Your task to perform on an android device: move a message to another label in the gmail app Image 0: 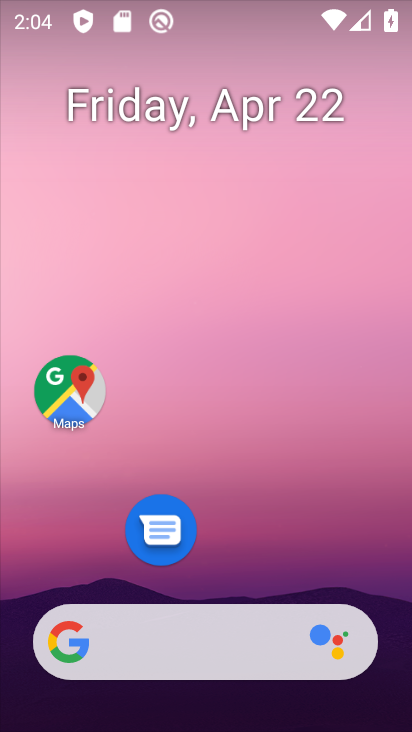
Step 0: drag from (209, 293) to (40, 22)
Your task to perform on an android device: move a message to another label in the gmail app Image 1: 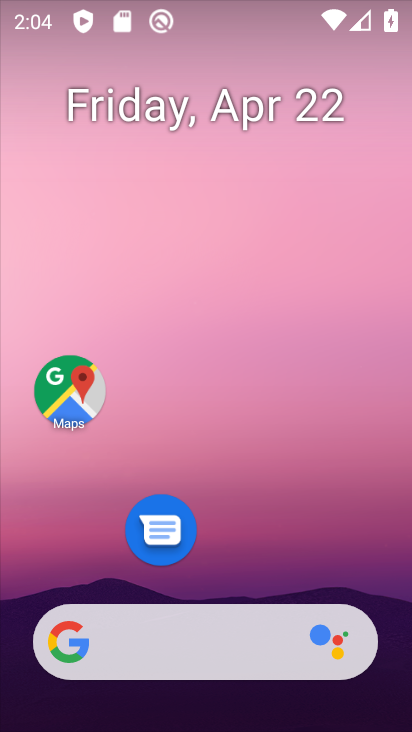
Step 1: drag from (232, 542) to (165, 22)
Your task to perform on an android device: move a message to another label in the gmail app Image 2: 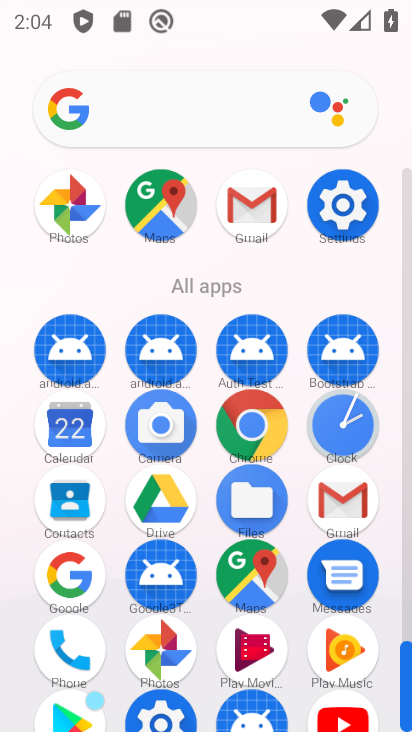
Step 2: click (335, 497)
Your task to perform on an android device: move a message to another label in the gmail app Image 3: 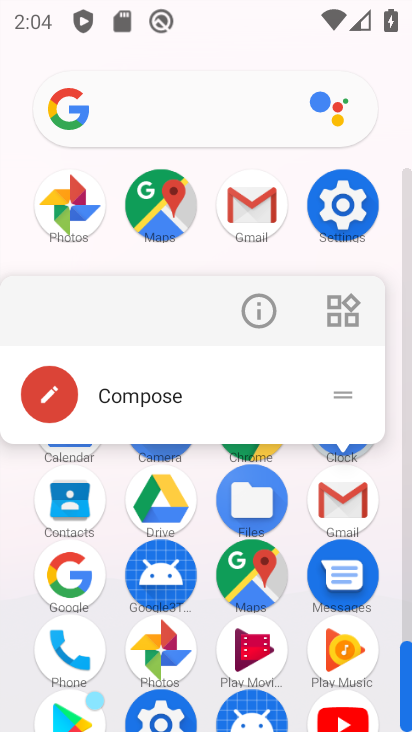
Step 3: click (340, 508)
Your task to perform on an android device: move a message to another label in the gmail app Image 4: 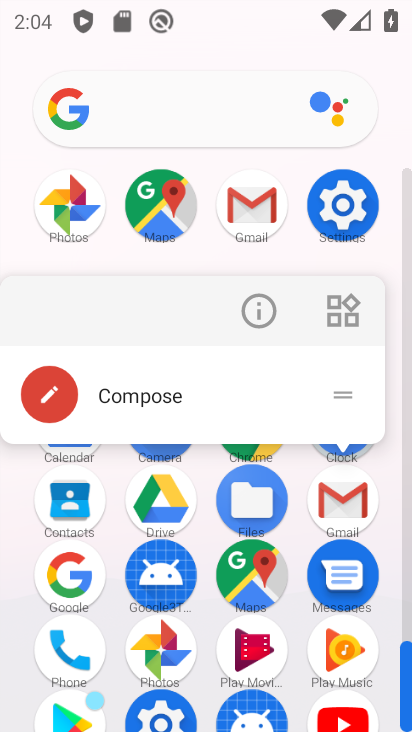
Step 4: click (336, 514)
Your task to perform on an android device: move a message to another label in the gmail app Image 5: 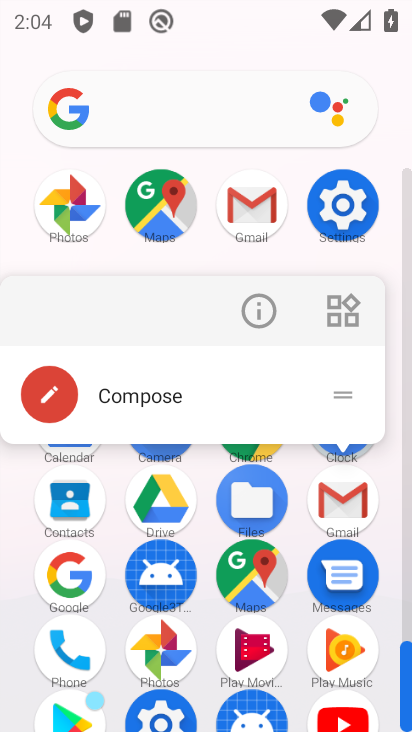
Step 5: click (338, 498)
Your task to perform on an android device: move a message to another label in the gmail app Image 6: 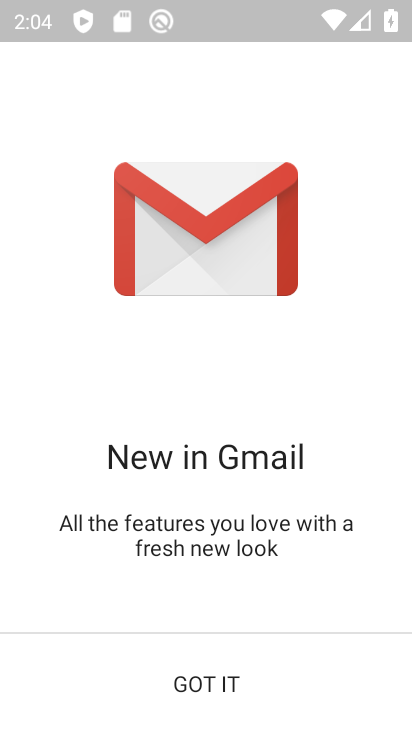
Step 6: click (217, 681)
Your task to perform on an android device: move a message to another label in the gmail app Image 7: 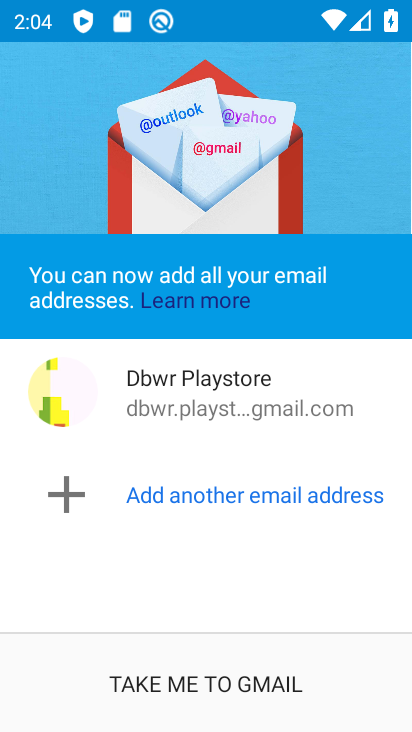
Step 7: click (217, 681)
Your task to perform on an android device: move a message to another label in the gmail app Image 8: 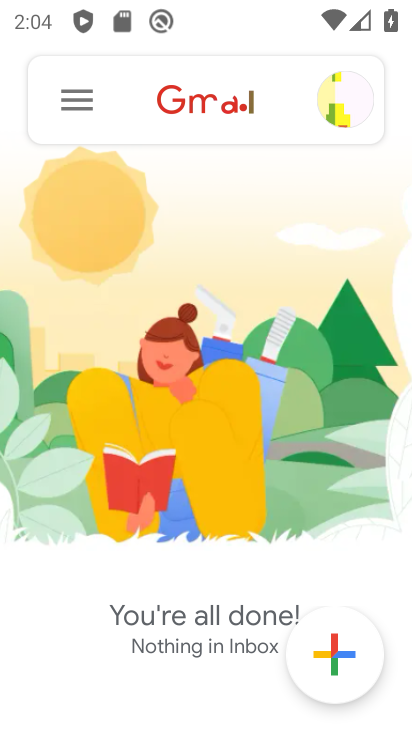
Step 8: click (73, 103)
Your task to perform on an android device: move a message to another label in the gmail app Image 9: 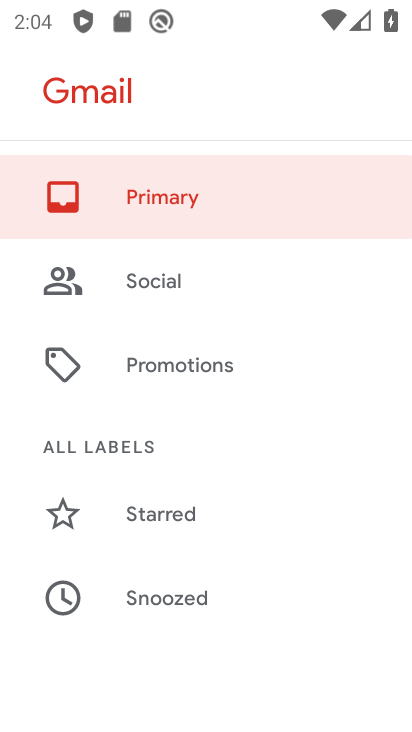
Step 9: drag from (204, 560) to (245, 98)
Your task to perform on an android device: move a message to another label in the gmail app Image 10: 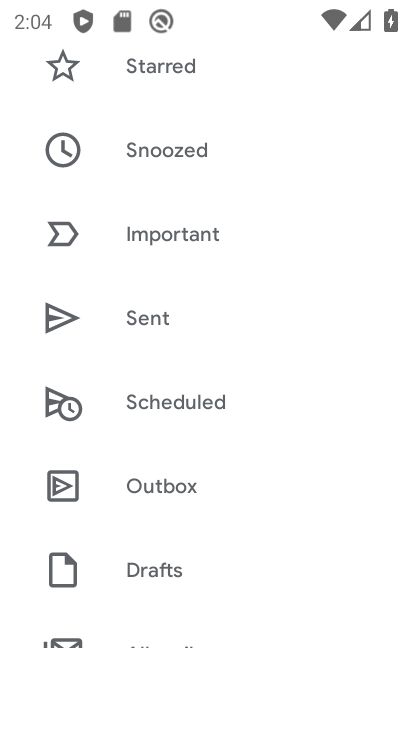
Step 10: drag from (208, 564) to (233, 190)
Your task to perform on an android device: move a message to another label in the gmail app Image 11: 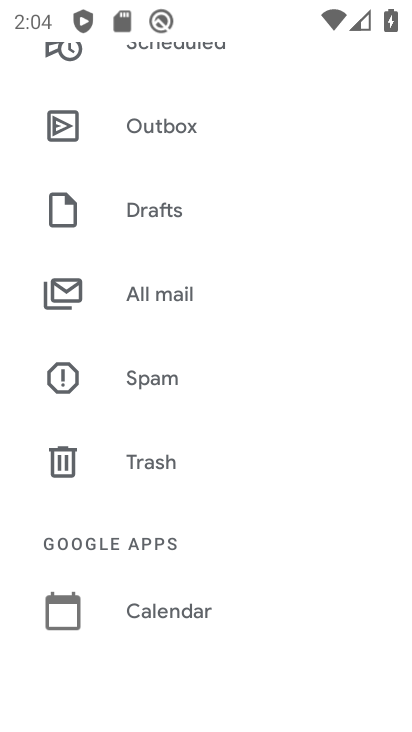
Step 11: drag from (206, 524) to (240, 244)
Your task to perform on an android device: move a message to another label in the gmail app Image 12: 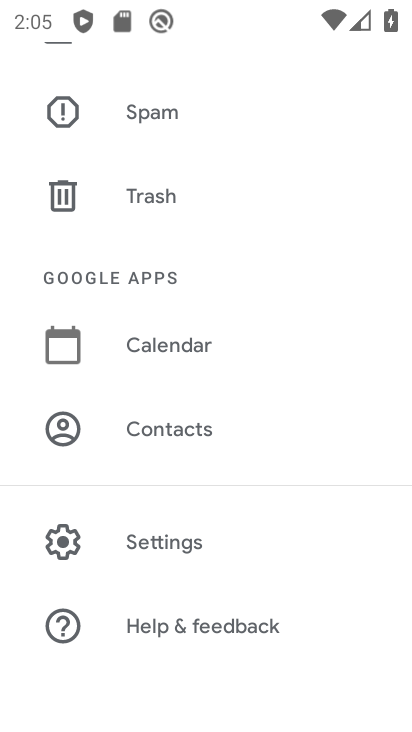
Step 12: drag from (281, 177) to (250, 541)
Your task to perform on an android device: move a message to another label in the gmail app Image 13: 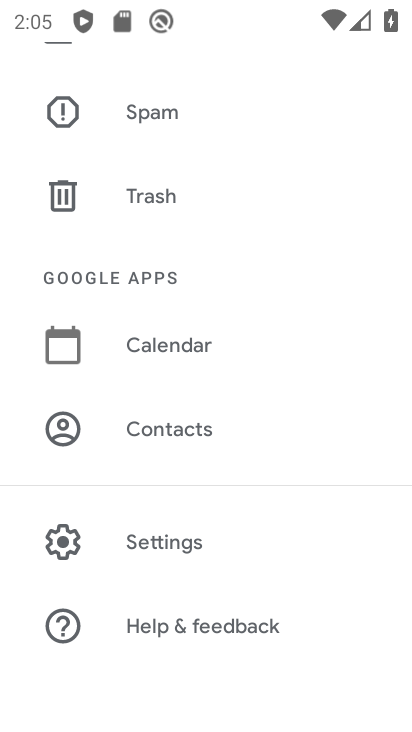
Step 13: drag from (226, 207) to (225, 544)
Your task to perform on an android device: move a message to another label in the gmail app Image 14: 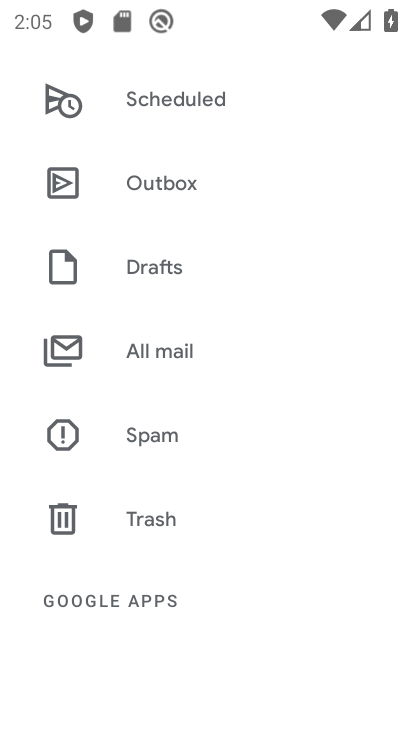
Step 14: click (168, 356)
Your task to perform on an android device: move a message to another label in the gmail app Image 15: 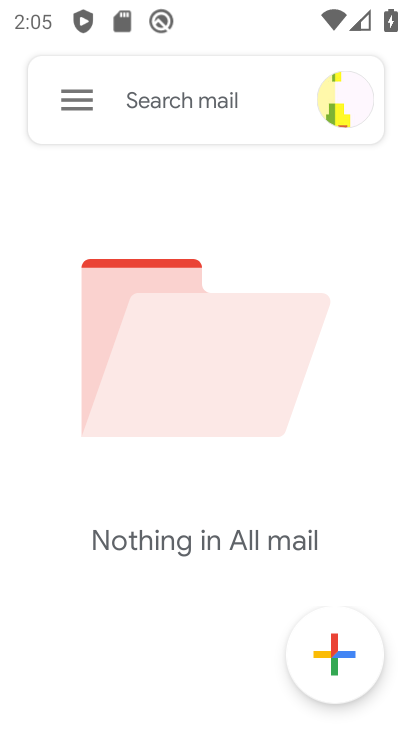
Step 15: task complete